Your task to perform on an android device: change alarm snooze length Image 0: 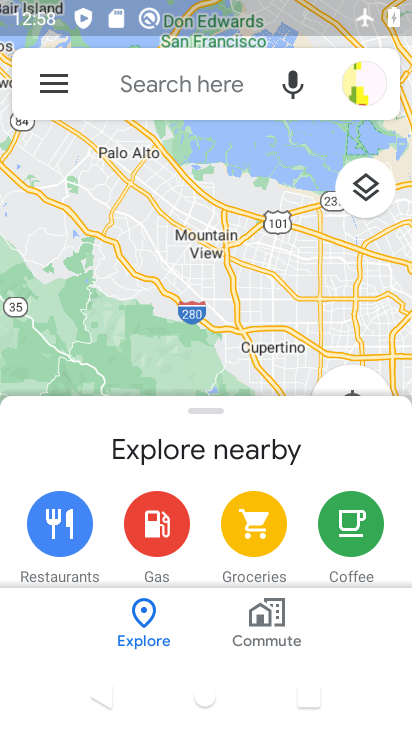
Step 0: press home button
Your task to perform on an android device: change alarm snooze length Image 1: 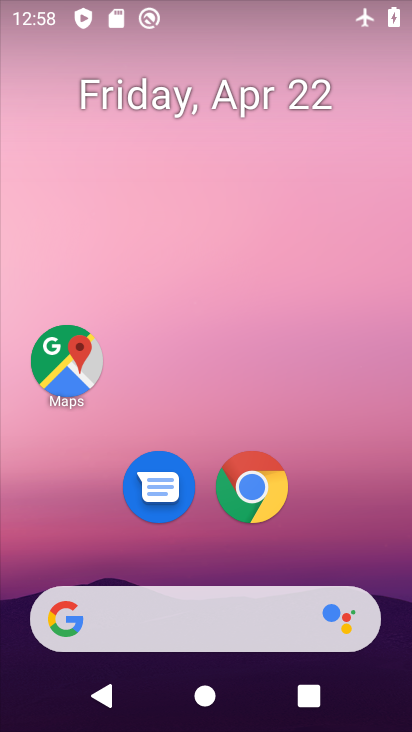
Step 1: drag from (212, 561) to (214, 131)
Your task to perform on an android device: change alarm snooze length Image 2: 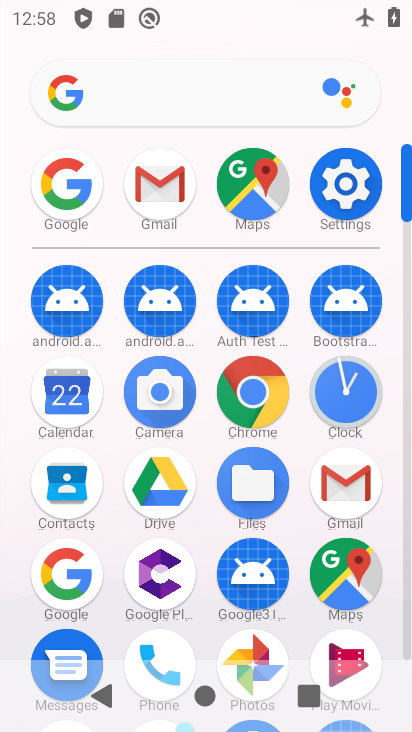
Step 2: click (338, 406)
Your task to perform on an android device: change alarm snooze length Image 3: 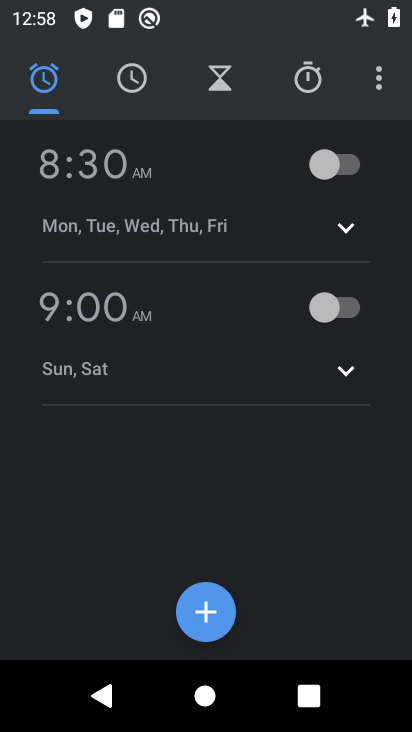
Step 3: click (384, 92)
Your task to perform on an android device: change alarm snooze length Image 4: 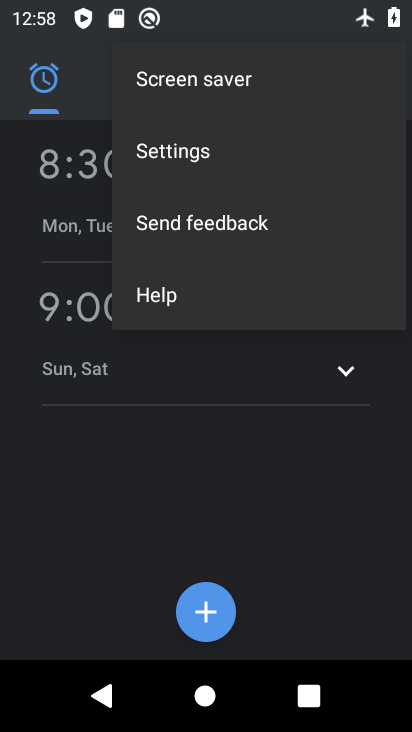
Step 4: click (185, 151)
Your task to perform on an android device: change alarm snooze length Image 5: 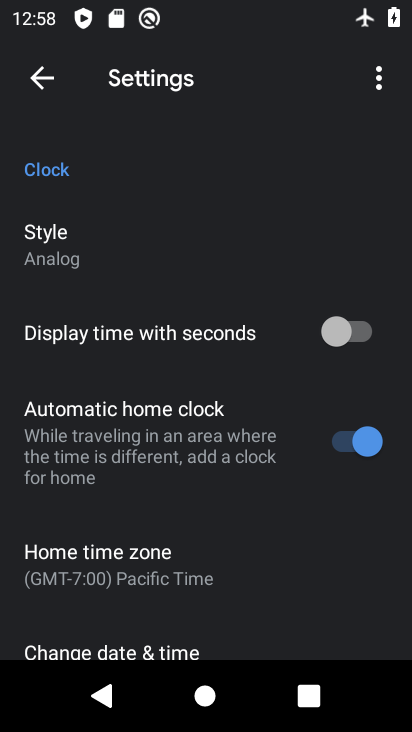
Step 5: drag from (249, 560) to (225, 217)
Your task to perform on an android device: change alarm snooze length Image 6: 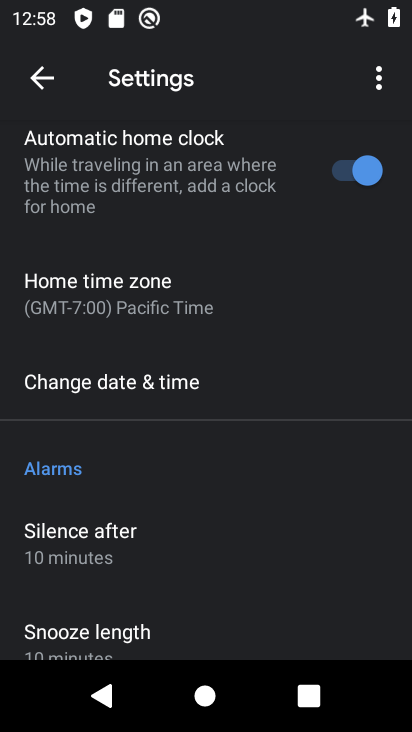
Step 6: drag from (223, 352) to (233, 250)
Your task to perform on an android device: change alarm snooze length Image 7: 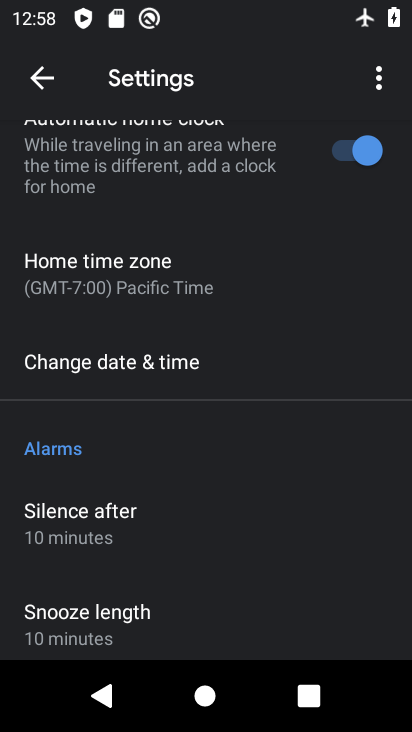
Step 7: drag from (219, 348) to (235, 301)
Your task to perform on an android device: change alarm snooze length Image 8: 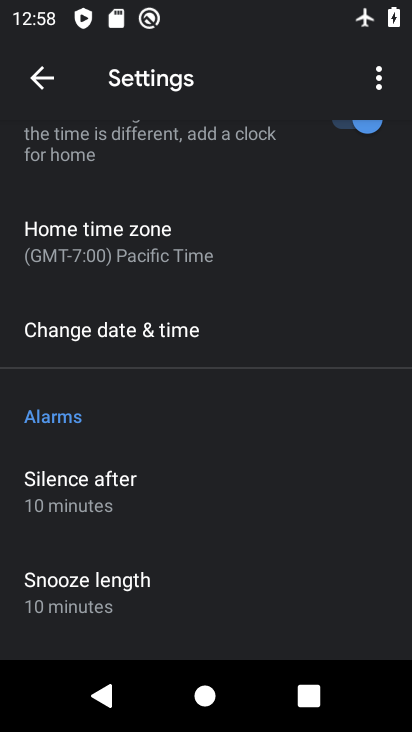
Step 8: click (145, 580)
Your task to perform on an android device: change alarm snooze length Image 9: 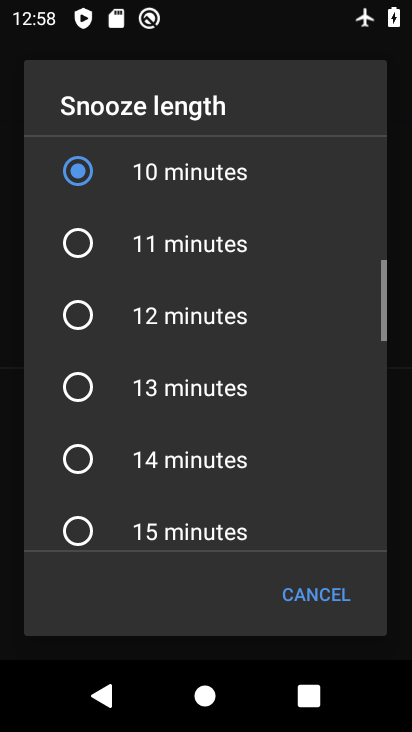
Step 9: click (191, 461)
Your task to perform on an android device: change alarm snooze length Image 10: 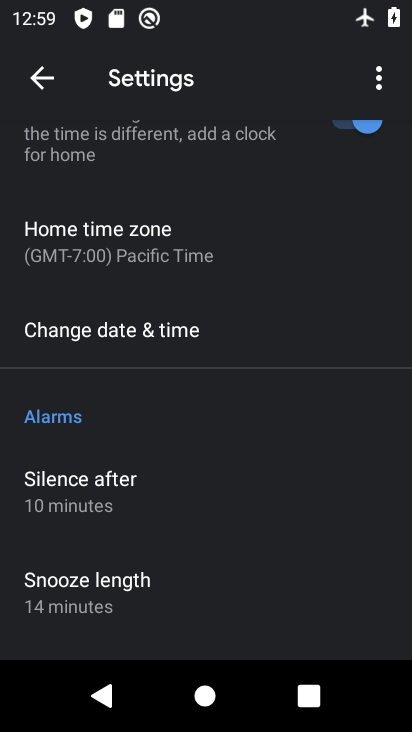
Step 10: task complete